Your task to perform on an android device: Go to Wikipedia Image 0: 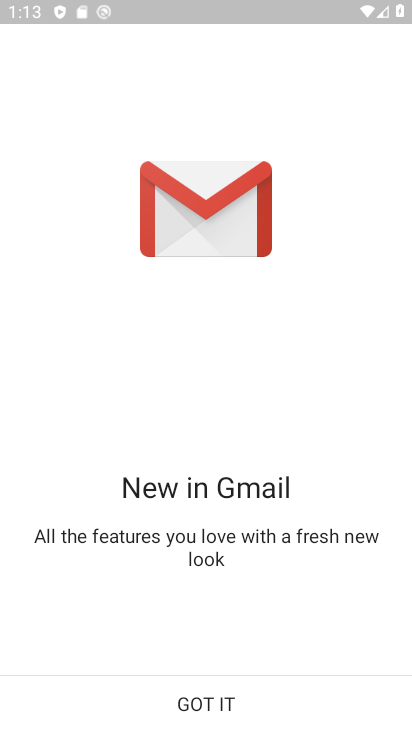
Step 0: drag from (216, 595) to (226, 1)
Your task to perform on an android device: Go to Wikipedia Image 1: 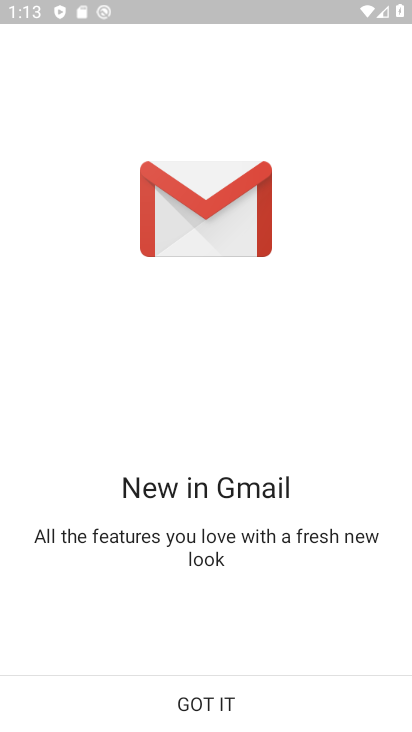
Step 1: press home button
Your task to perform on an android device: Go to Wikipedia Image 2: 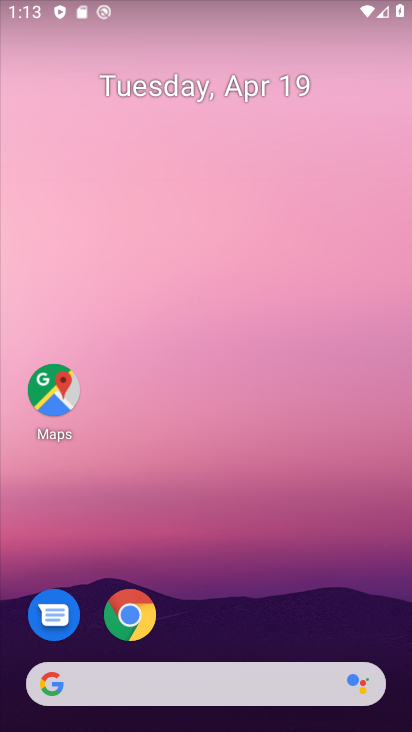
Step 2: click (134, 618)
Your task to perform on an android device: Go to Wikipedia Image 3: 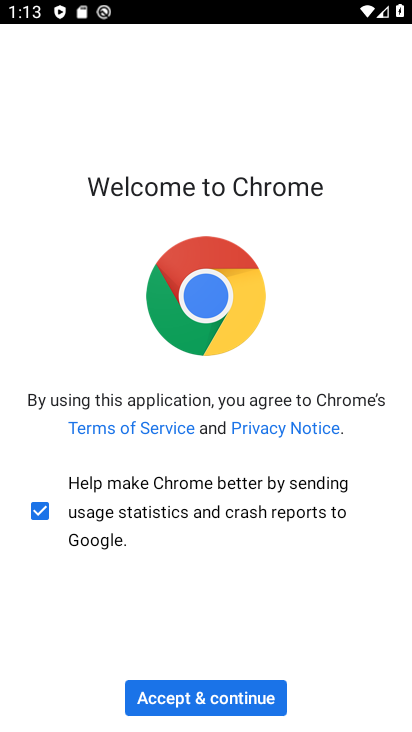
Step 3: click (40, 521)
Your task to perform on an android device: Go to Wikipedia Image 4: 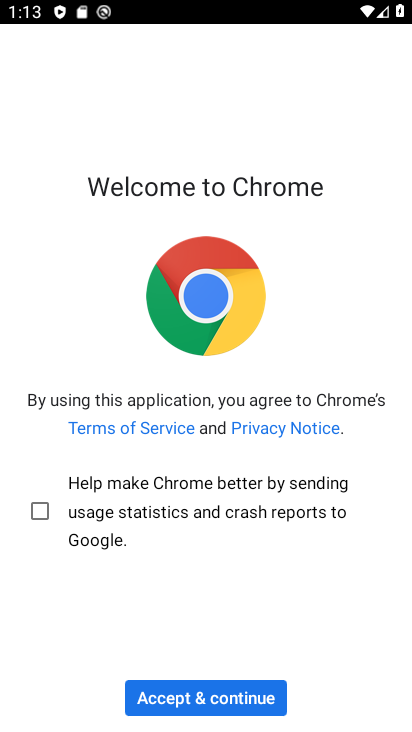
Step 4: click (200, 694)
Your task to perform on an android device: Go to Wikipedia Image 5: 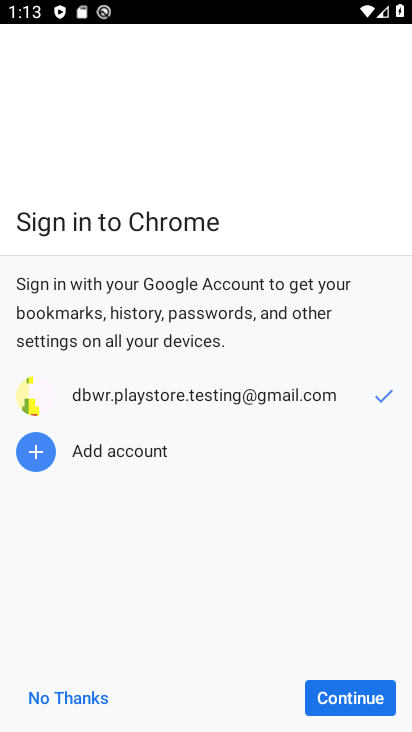
Step 5: click (373, 698)
Your task to perform on an android device: Go to Wikipedia Image 6: 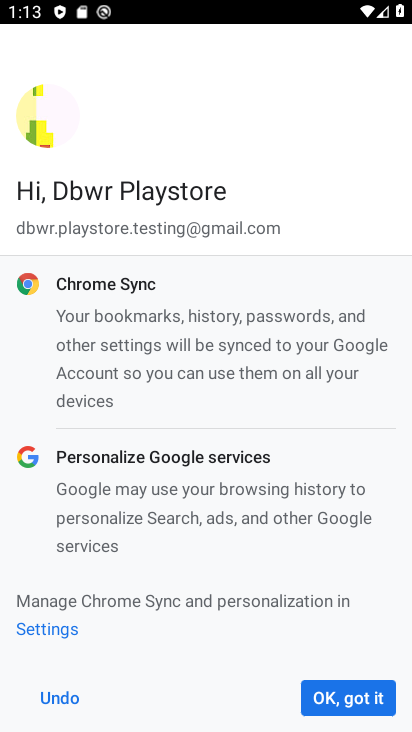
Step 6: click (353, 686)
Your task to perform on an android device: Go to Wikipedia Image 7: 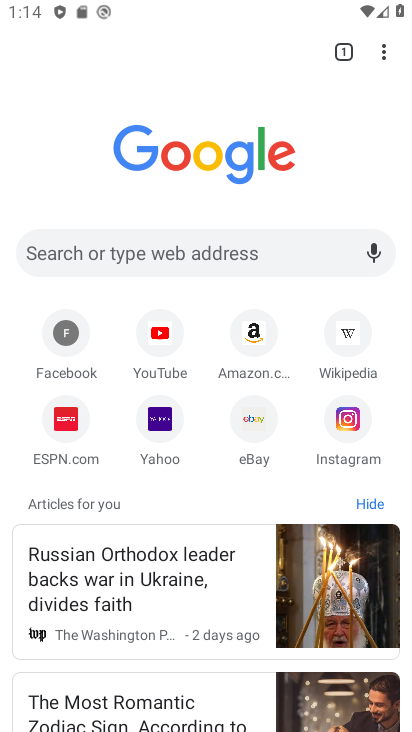
Step 7: click (353, 332)
Your task to perform on an android device: Go to Wikipedia Image 8: 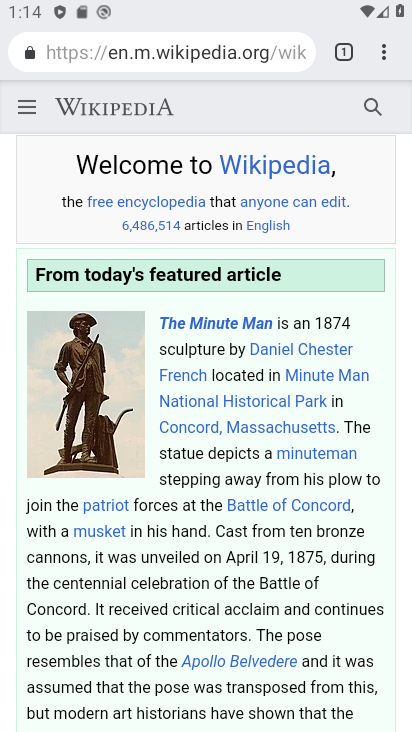
Step 8: task complete